Your task to perform on an android device: change the clock style Image 0: 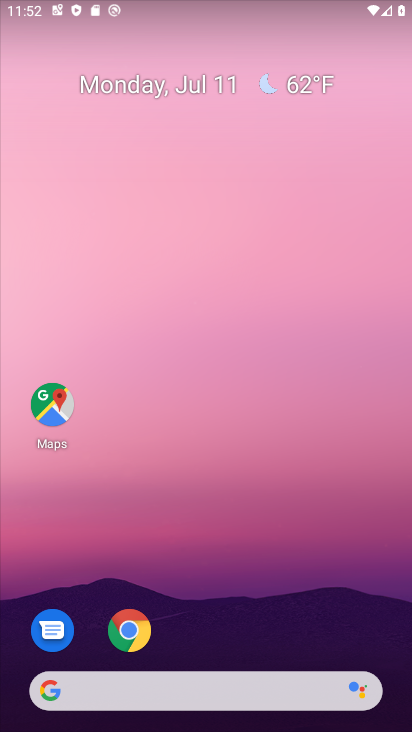
Step 0: drag from (223, 707) to (242, 150)
Your task to perform on an android device: change the clock style Image 1: 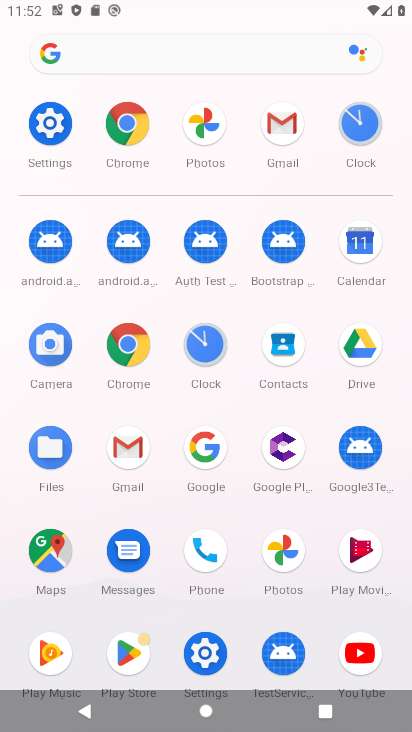
Step 1: click (200, 342)
Your task to perform on an android device: change the clock style Image 2: 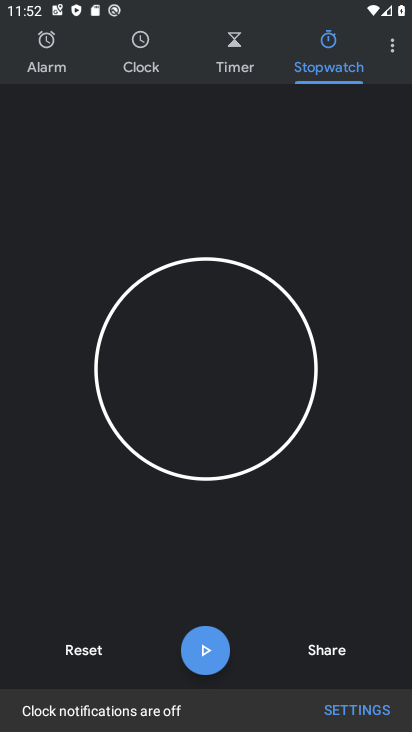
Step 2: click (392, 46)
Your task to perform on an android device: change the clock style Image 3: 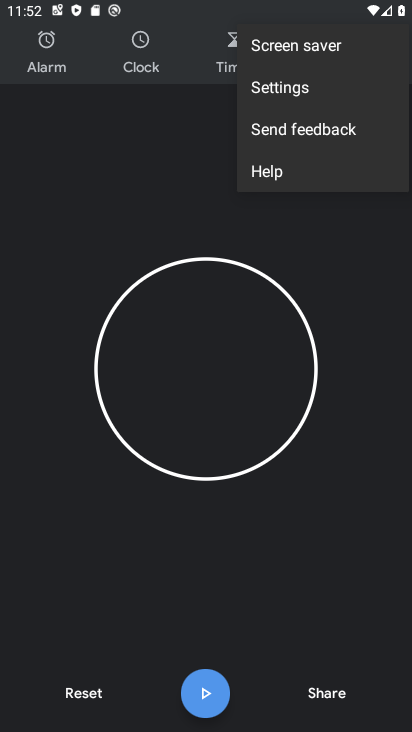
Step 3: click (316, 88)
Your task to perform on an android device: change the clock style Image 4: 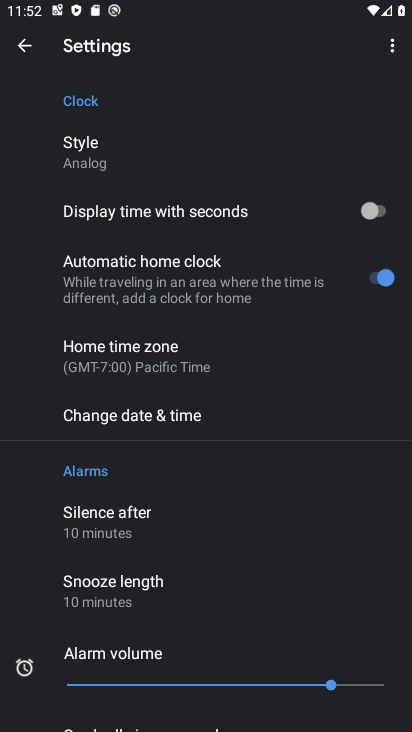
Step 4: click (106, 152)
Your task to perform on an android device: change the clock style Image 5: 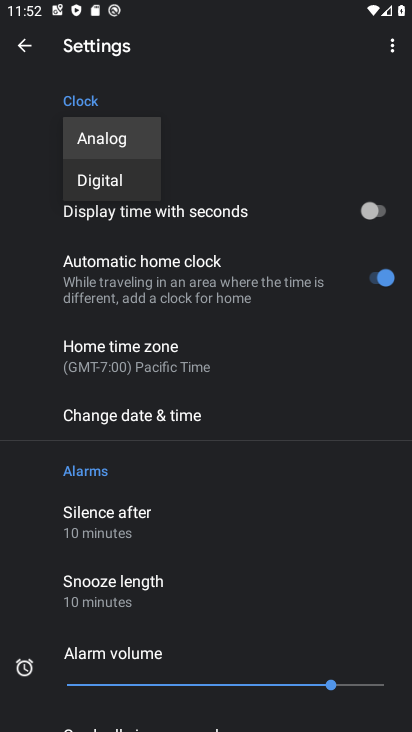
Step 5: click (124, 181)
Your task to perform on an android device: change the clock style Image 6: 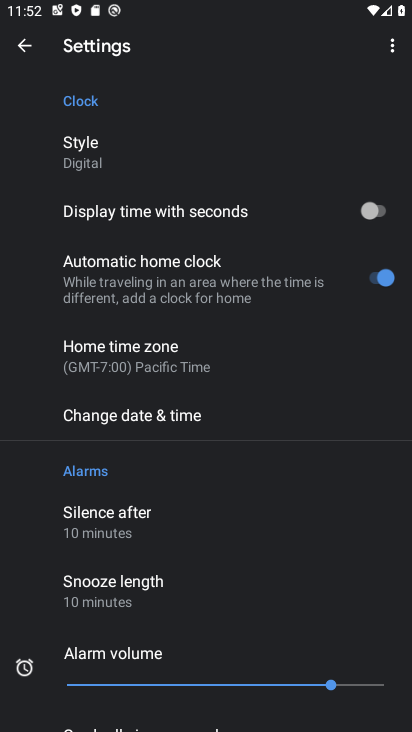
Step 6: task complete